Your task to perform on an android device: Open calendar and show me the second week of next month Image 0: 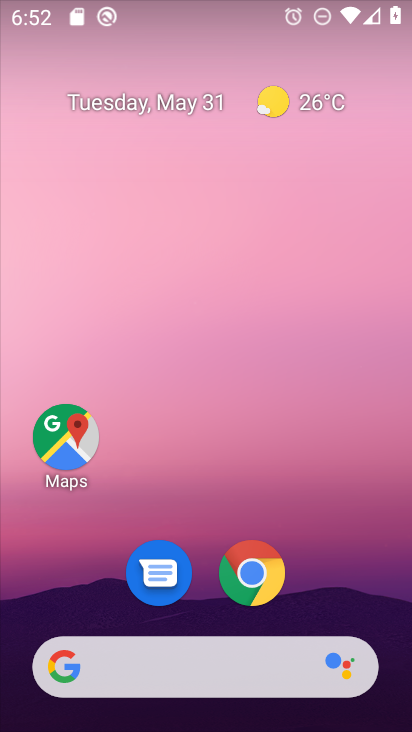
Step 0: drag from (396, 656) to (307, 100)
Your task to perform on an android device: Open calendar and show me the second week of next month Image 1: 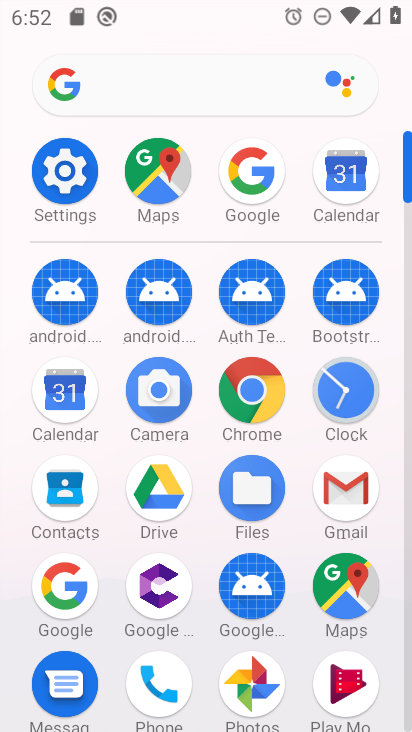
Step 1: click (337, 179)
Your task to perform on an android device: Open calendar and show me the second week of next month Image 2: 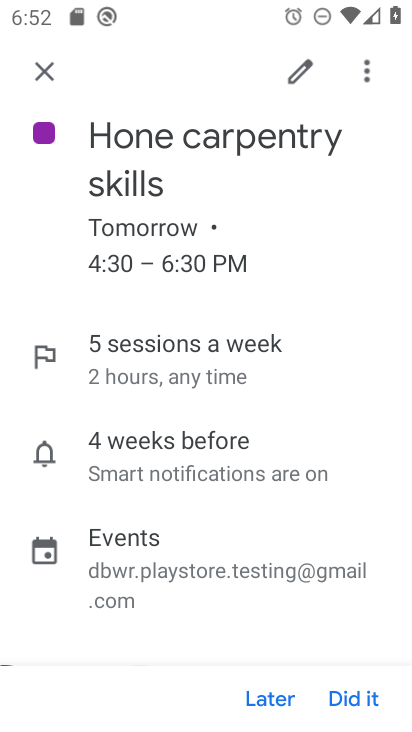
Step 2: press back button
Your task to perform on an android device: Open calendar and show me the second week of next month Image 3: 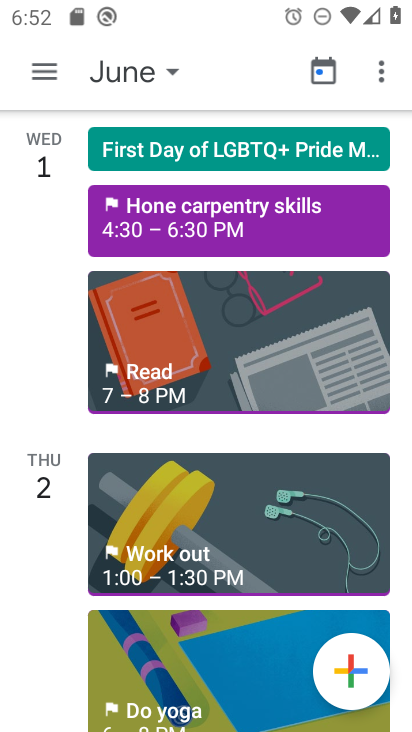
Step 3: click (137, 83)
Your task to perform on an android device: Open calendar and show me the second week of next month Image 4: 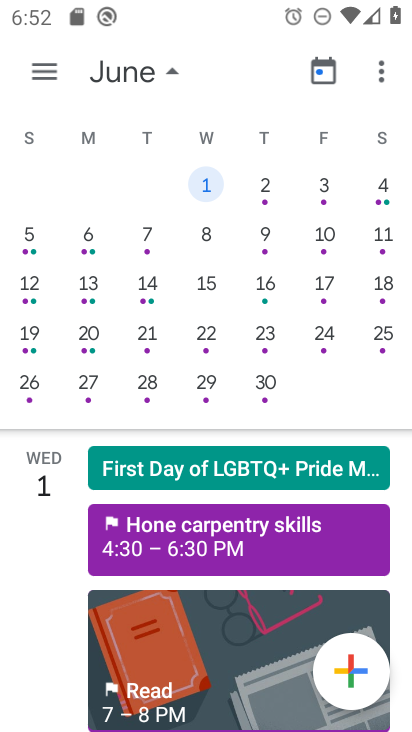
Step 4: drag from (390, 282) to (31, 265)
Your task to perform on an android device: Open calendar and show me the second week of next month Image 5: 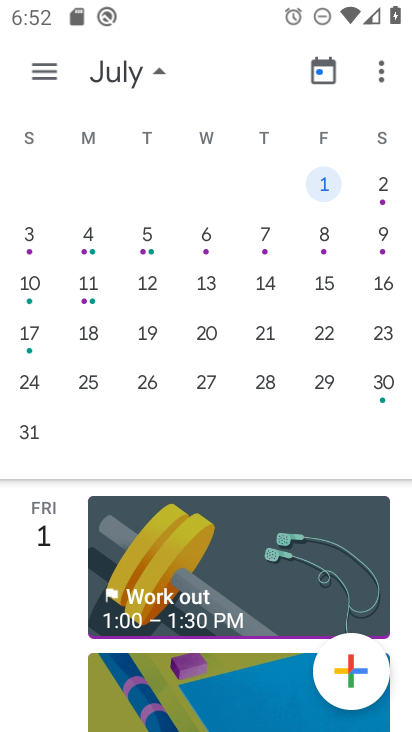
Step 5: click (90, 289)
Your task to perform on an android device: Open calendar and show me the second week of next month Image 6: 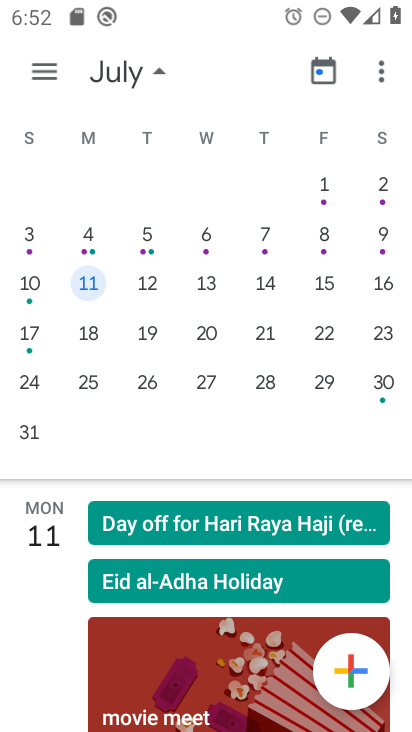
Step 6: task complete